Your task to perform on an android device: Go to Wikipedia Image 0: 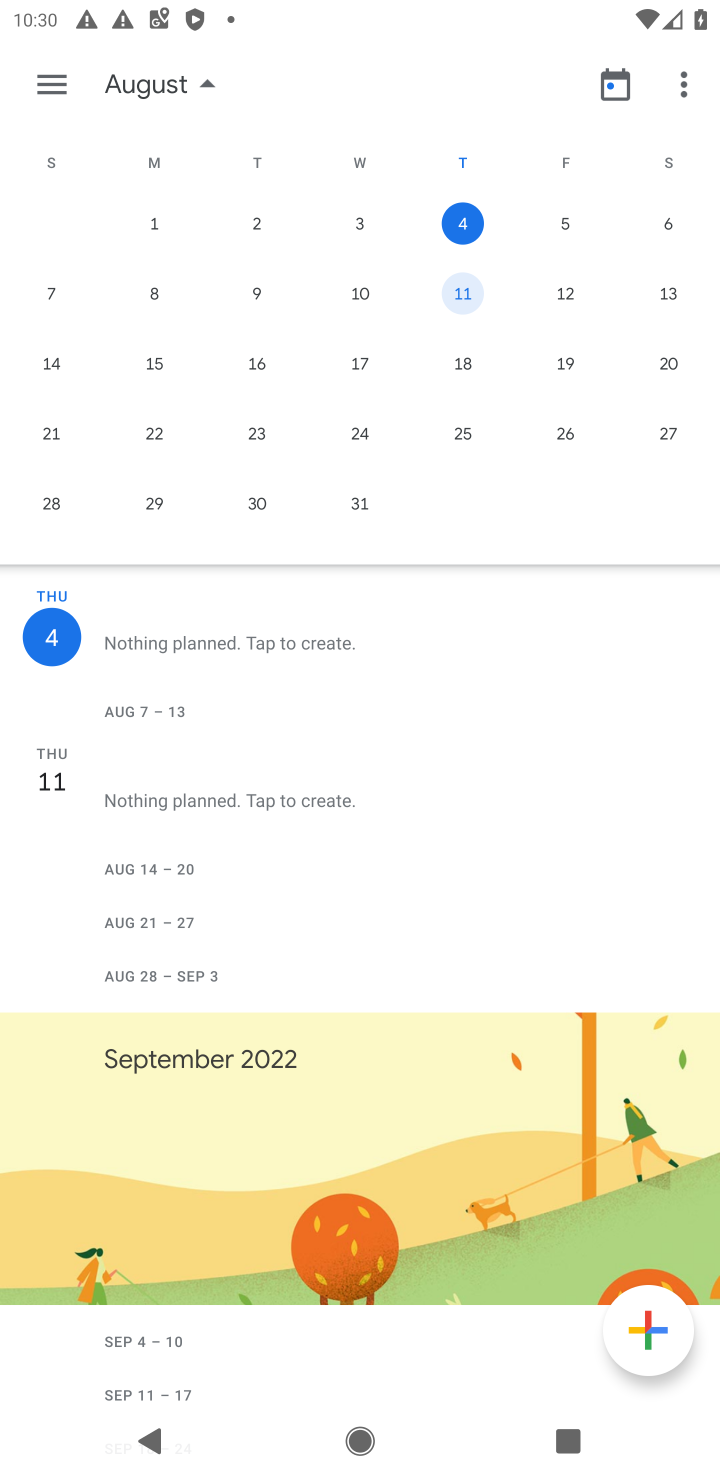
Step 0: press home button
Your task to perform on an android device: Go to Wikipedia Image 1: 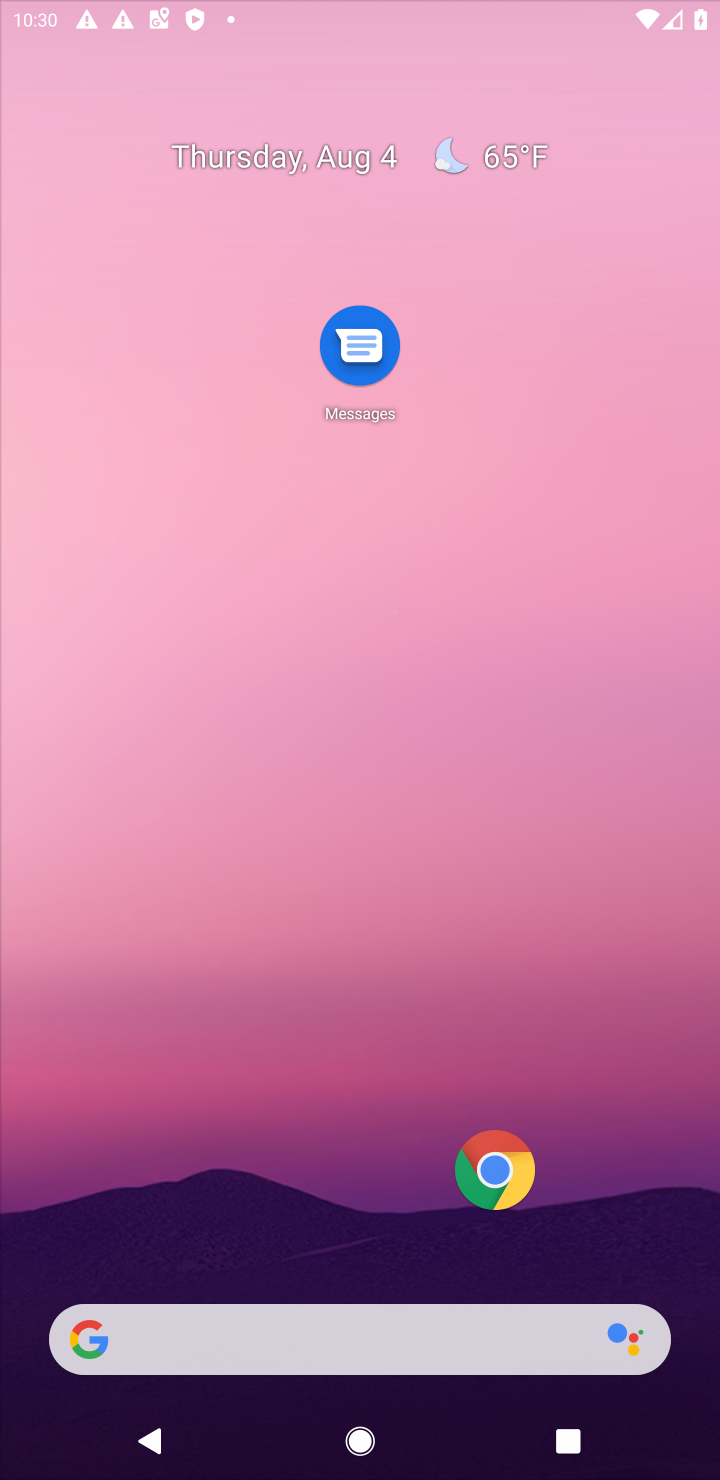
Step 1: drag from (300, 1374) to (381, 65)
Your task to perform on an android device: Go to Wikipedia Image 2: 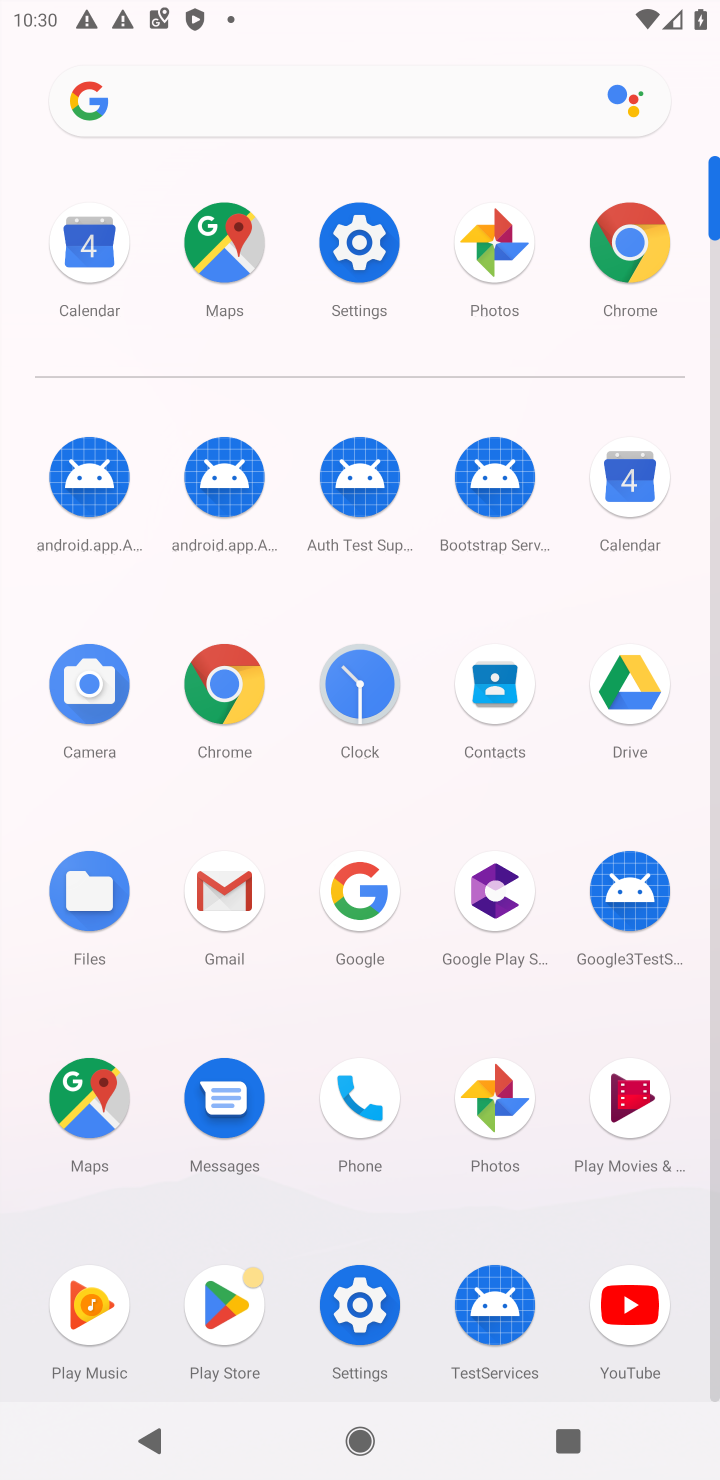
Step 2: click (601, 247)
Your task to perform on an android device: Go to Wikipedia Image 3: 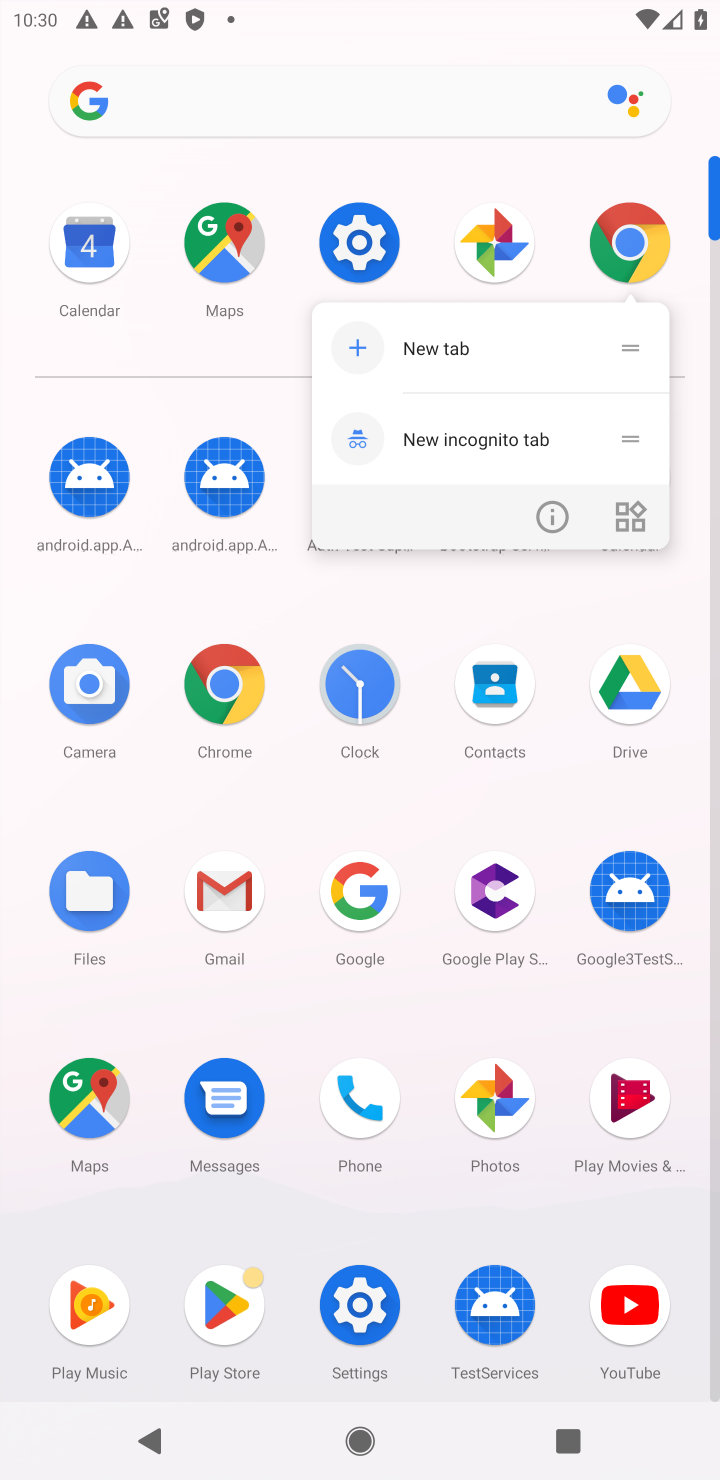
Step 3: click (628, 241)
Your task to perform on an android device: Go to Wikipedia Image 4: 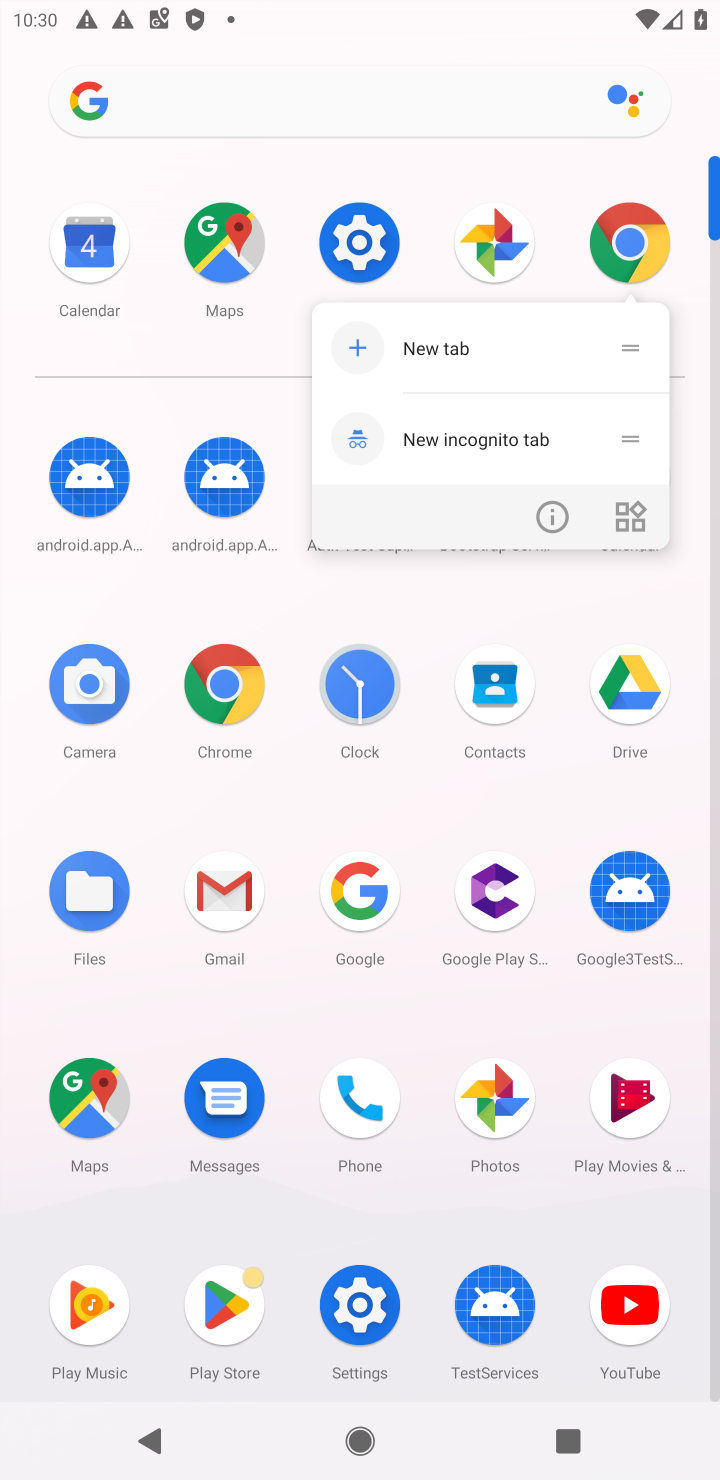
Step 4: click (630, 240)
Your task to perform on an android device: Go to Wikipedia Image 5: 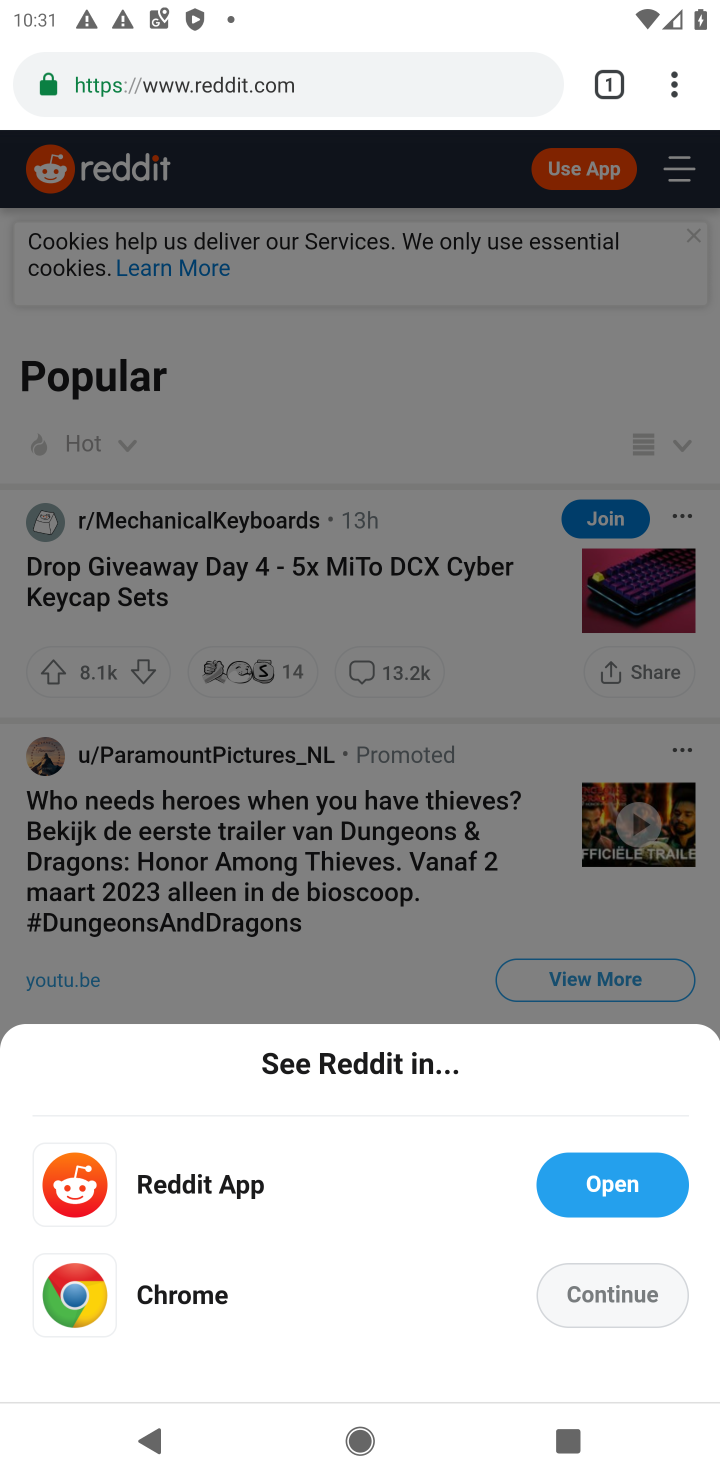
Step 5: click (499, 88)
Your task to perform on an android device: Go to Wikipedia Image 6: 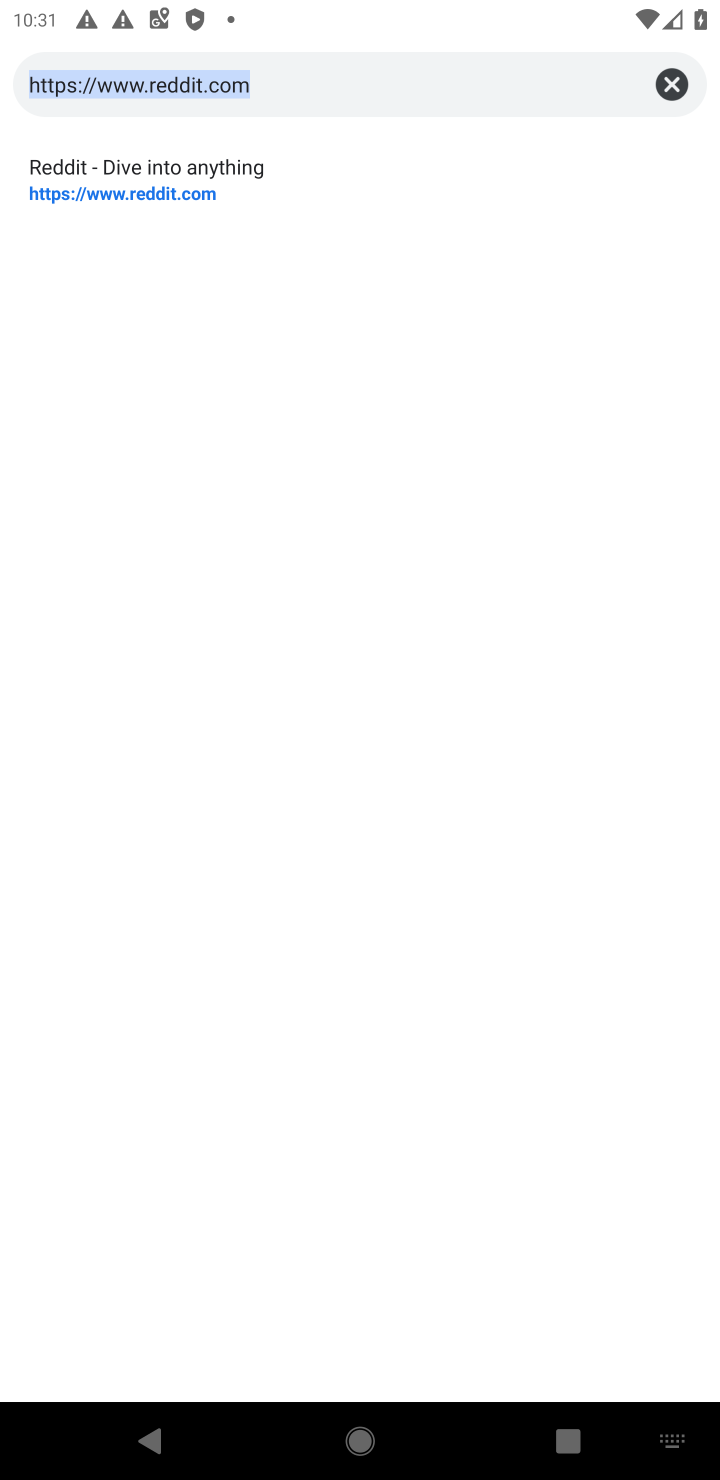
Step 6: click (673, 75)
Your task to perform on an android device: Go to Wikipedia Image 7: 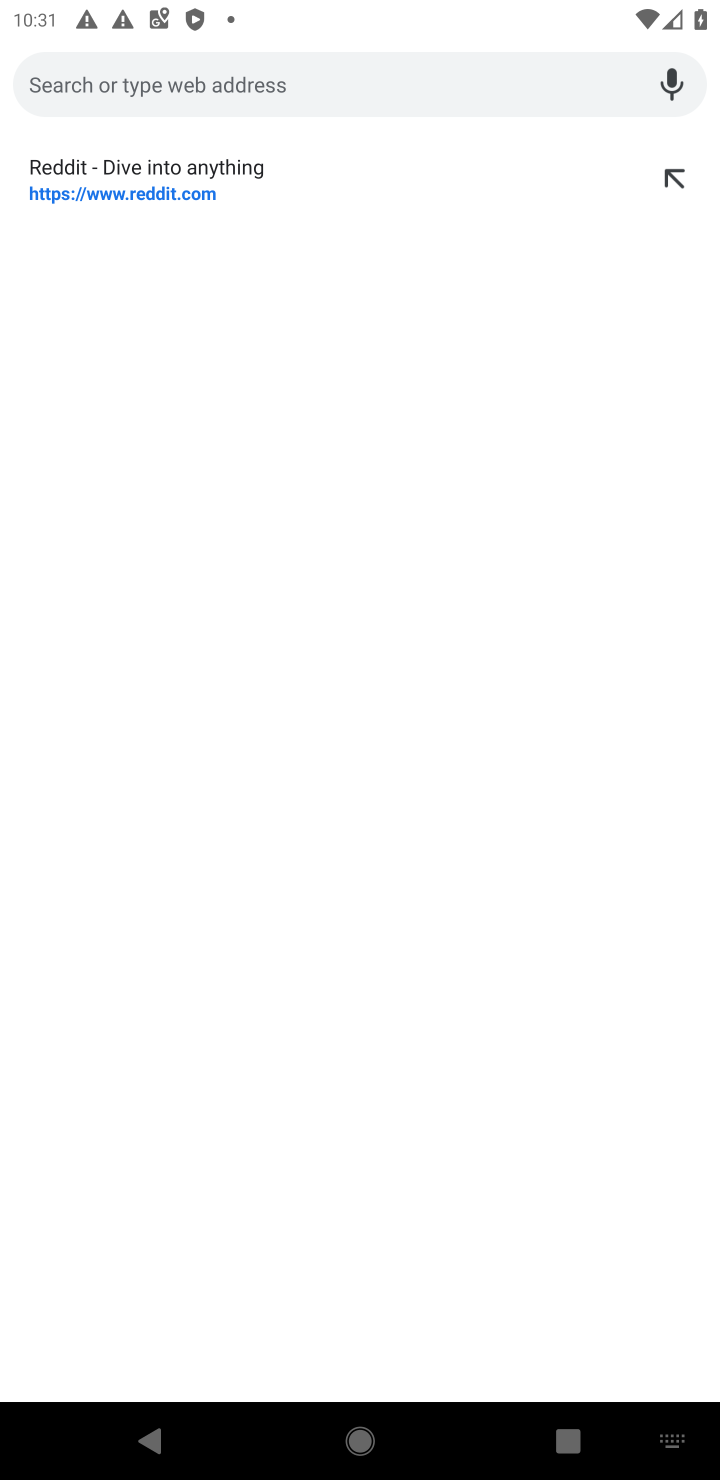
Step 7: type "Wikipedia"
Your task to perform on an android device: Go to Wikipedia Image 8: 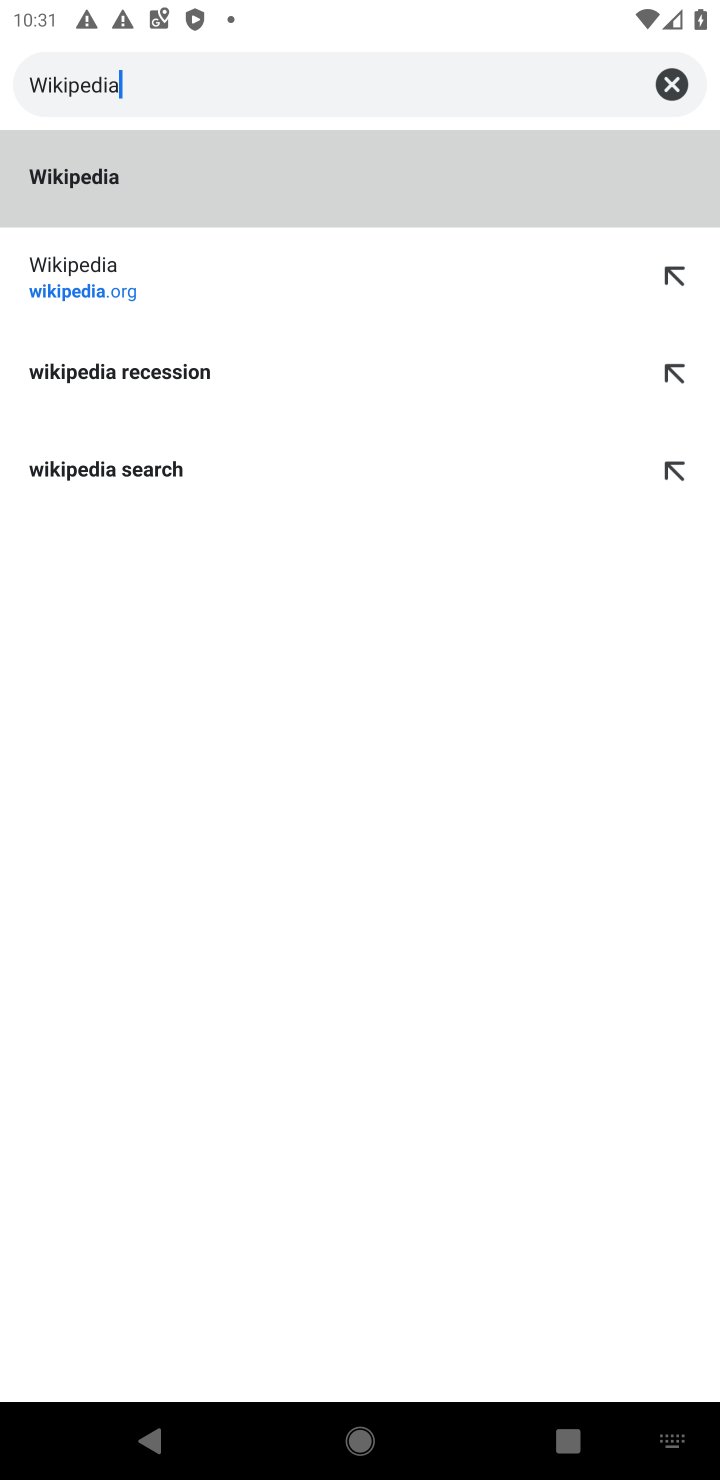
Step 8: click (143, 176)
Your task to perform on an android device: Go to Wikipedia Image 9: 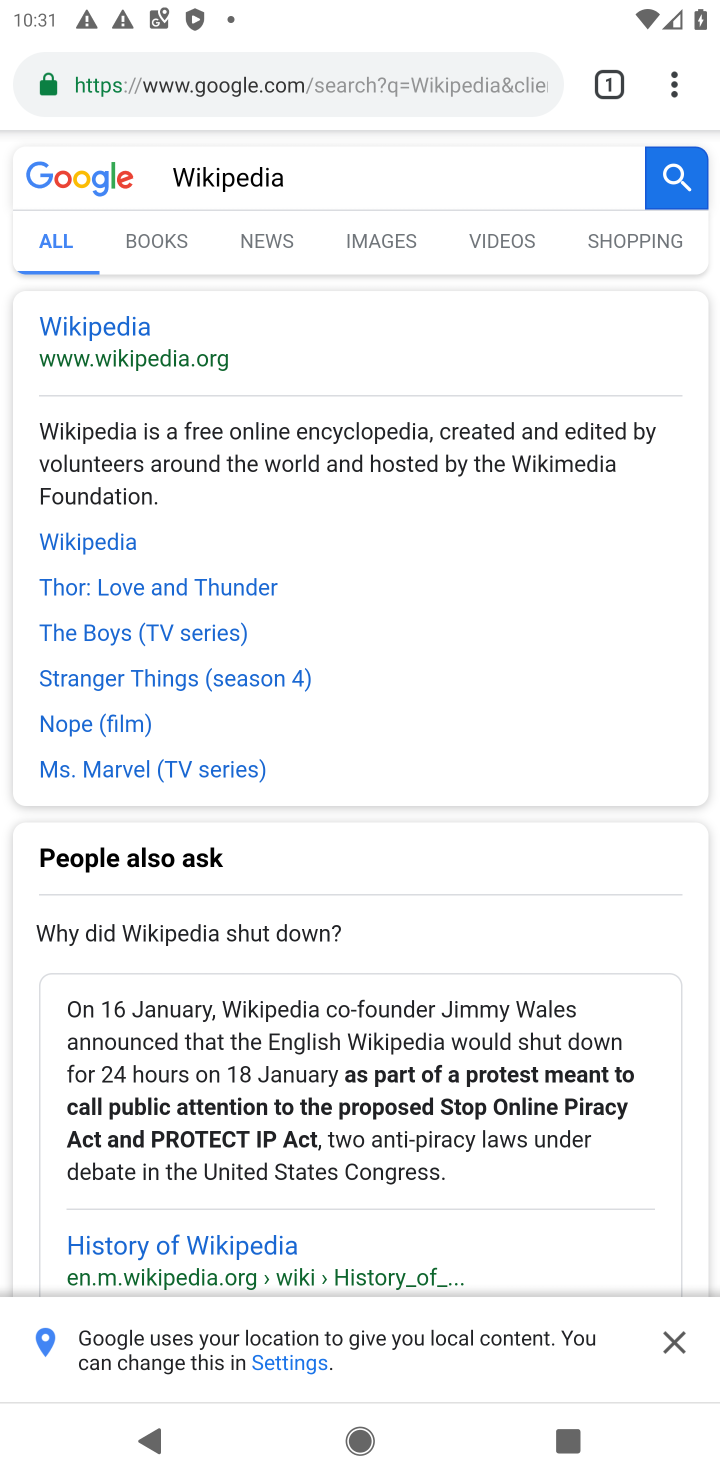
Step 9: click (182, 338)
Your task to perform on an android device: Go to Wikipedia Image 10: 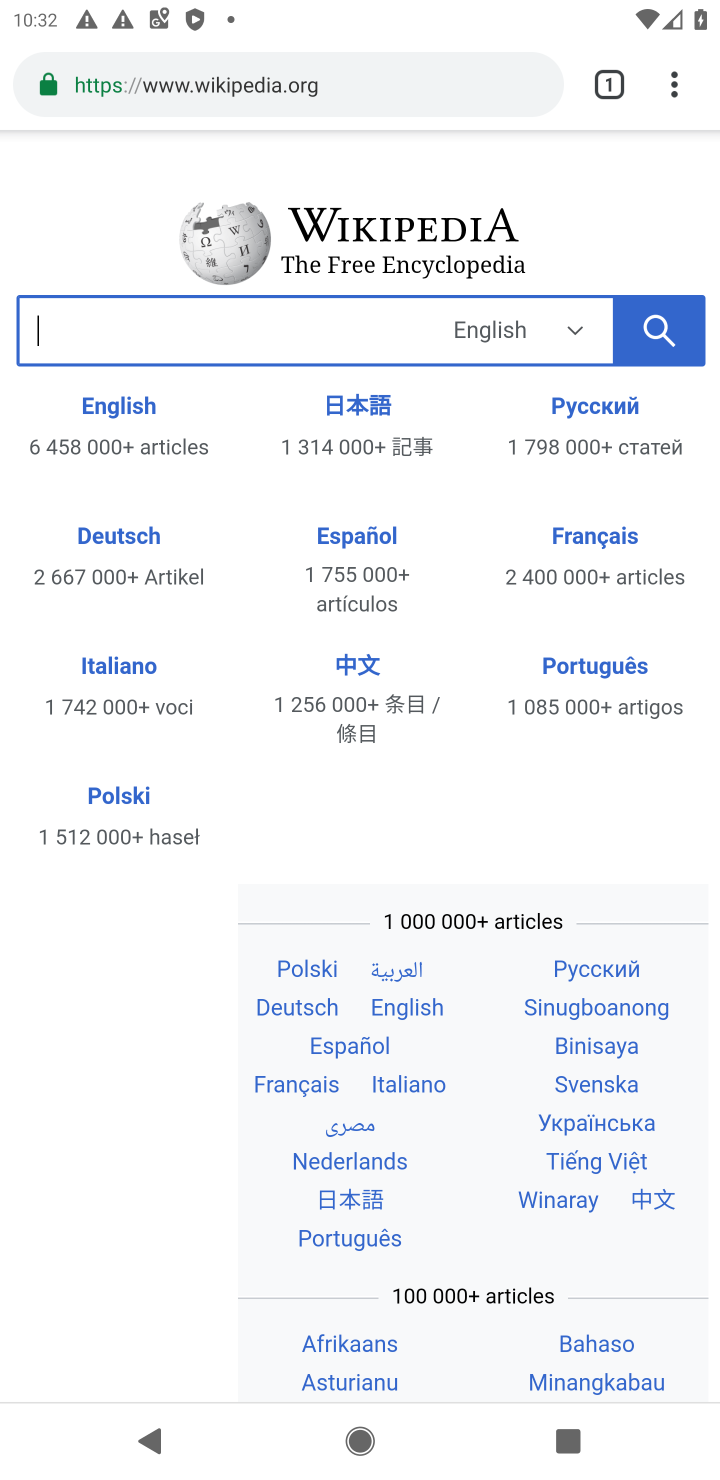
Step 10: task complete